Your task to perform on an android device: stop showing notifications on the lock screen Image 0: 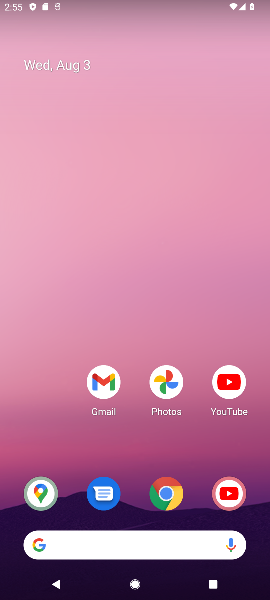
Step 0: drag from (19, 480) to (121, 0)
Your task to perform on an android device: stop showing notifications on the lock screen Image 1: 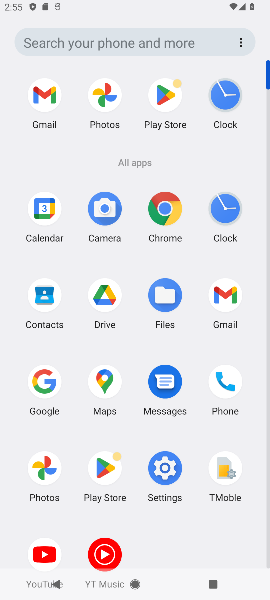
Step 1: click (163, 477)
Your task to perform on an android device: stop showing notifications on the lock screen Image 2: 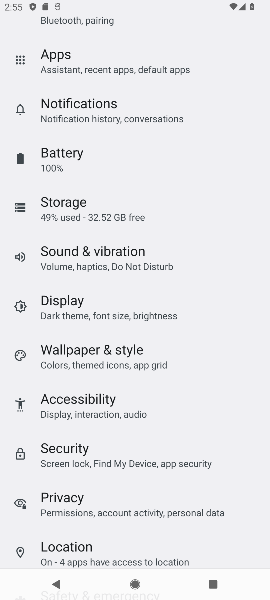
Step 2: click (98, 115)
Your task to perform on an android device: stop showing notifications on the lock screen Image 3: 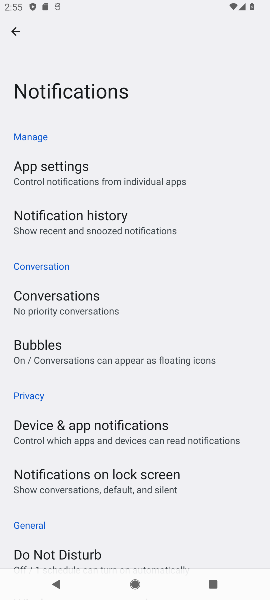
Step 3: click (112, 485)
Your task to perform on an android device: stop showing notifications on the lock screen Image 4: 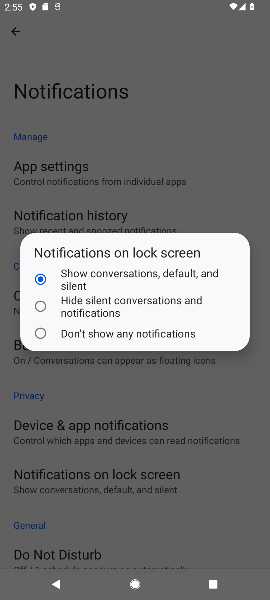
Step 4: click (86, 333)
Your task to perform on an android device: stop showing notifications on the lock screen Image 5: 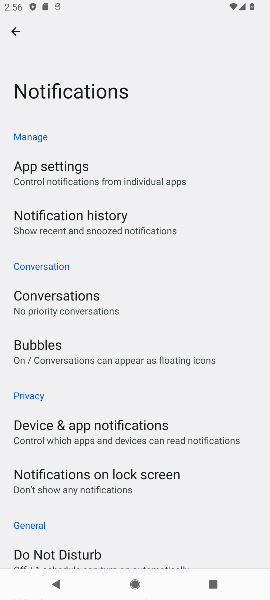
Step 5: click (137, 480)
Your task to perform on an android device: stop showing notifications on the lock screen Image 6: 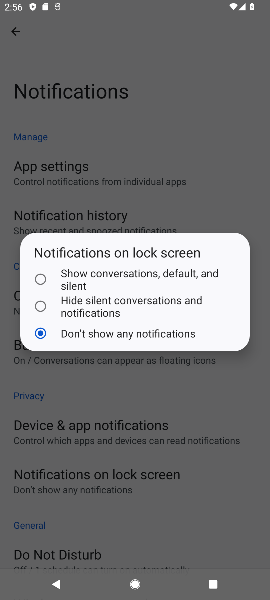
Step 6: task complete